Your task to perform on an android device: Search for Mexican restaurants on Maps Image 0: 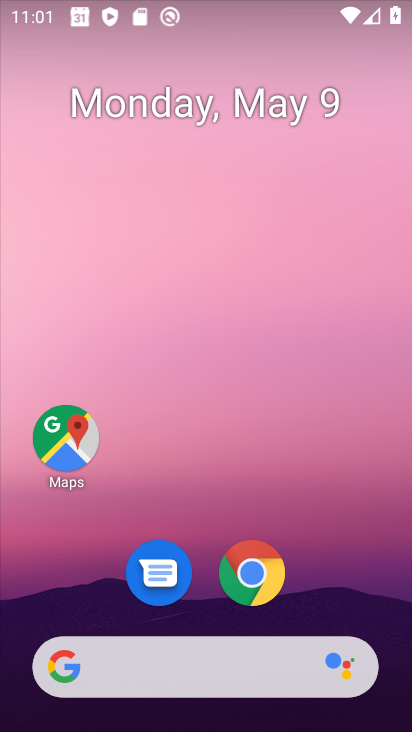
Step 0: drag from (203, 604) to (317, 211)
Your task to perform on an android device: Search for Mexican restaurants on Maps Image 1: 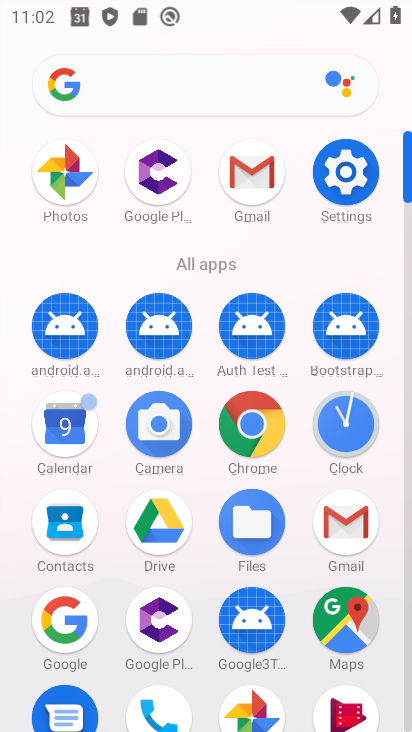
Step 1: click (348, 617)
Your task to perform on an android device: Search for Mexican restaurants on Maps Image 2: 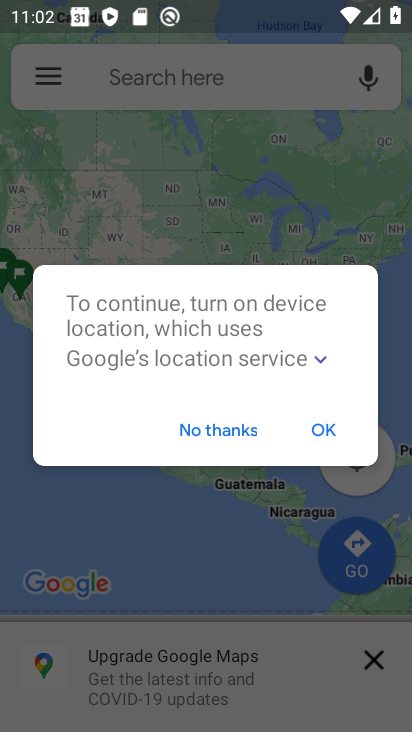
Step 2: click (332, 435)
Your task to perform on an android device: Search for Mexican restaurants on Maps Image 3: 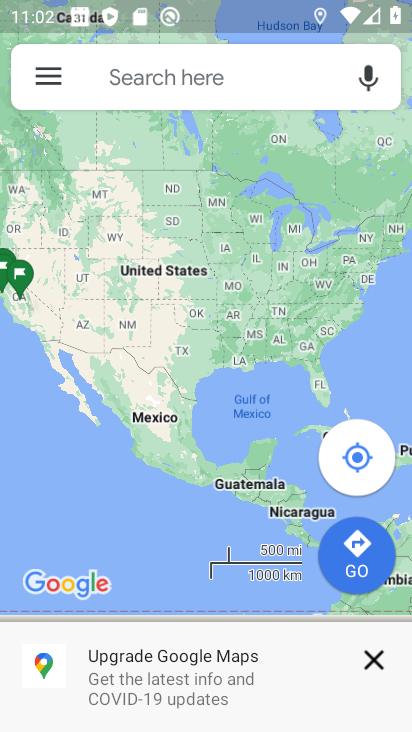
Step 3: click (374, 653)
Your task to perform on an android device: Search for Mexican restaurants on Maps Image 4: 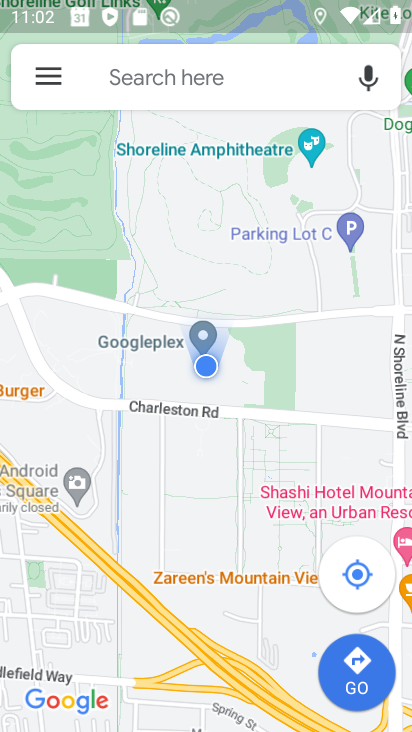
Step 4: click (225, 88)
Your task to perform on an android device: Search for Mexican restaurants on Maps Image 5: 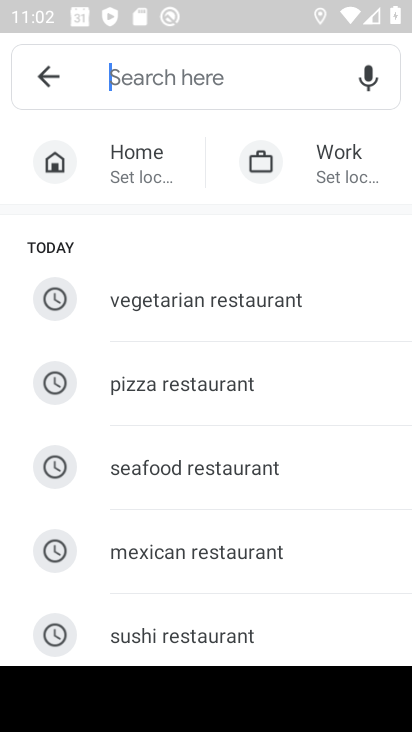
Step 5: click (199, 567)
Your task to perform on an android device: Search for Mexican restaurants on Maps Image 6: 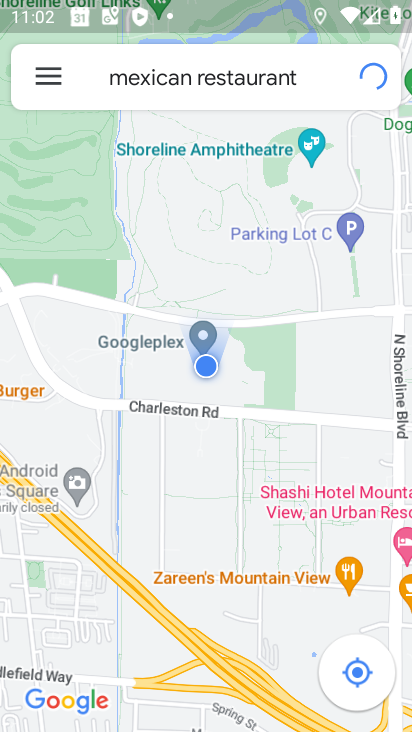
Step 6: task complete